Your task to perform on an android device: open sync settings in chrome Image 0: 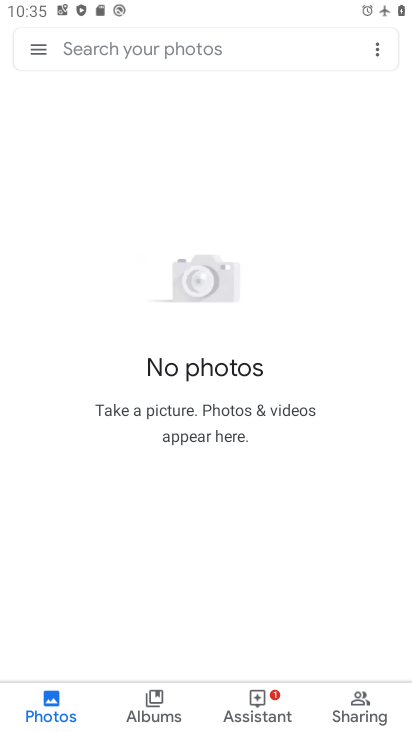
Step 0: press home button
Your task to perform on an android device: open sync settings in chrome Image 1: 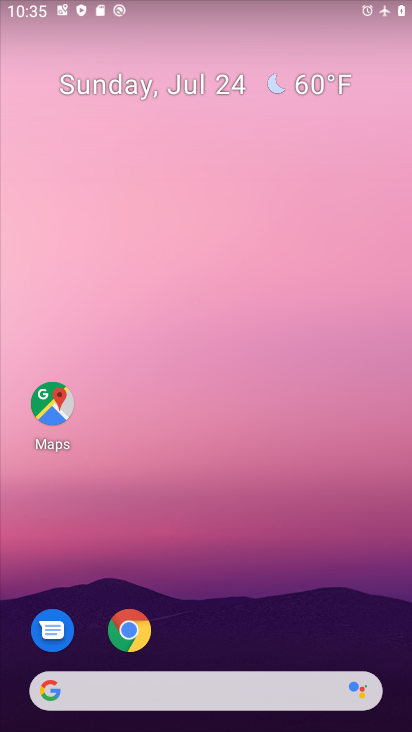
Step 1: click (134, 631)
Your task to perform on an android device: open sync settings in chrome Image 2: 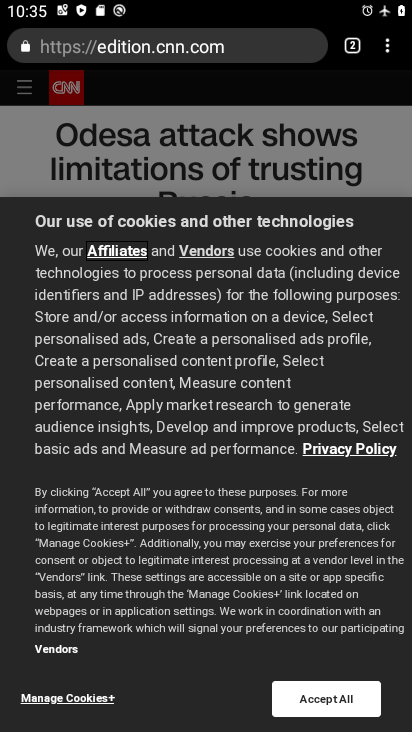
Step 2: click (385, 42)
Your task to perform on an android device: open sync settings in chrome Image 3: 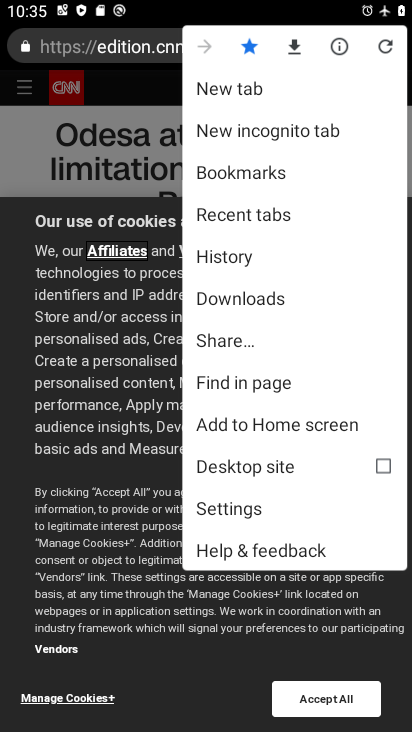
Step 3: click (244, 510)
Your task to perform on an android device: open sync settings in chrome Image 4: 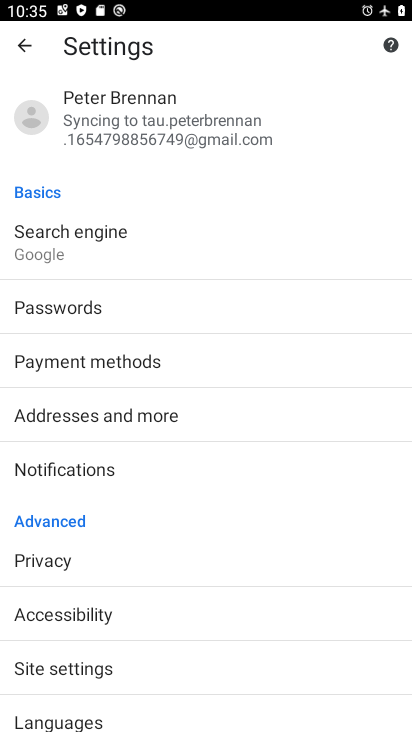
Step 4: click (171, 112)
Your task to perform on an android device: open sync settings in chrome Image 5: 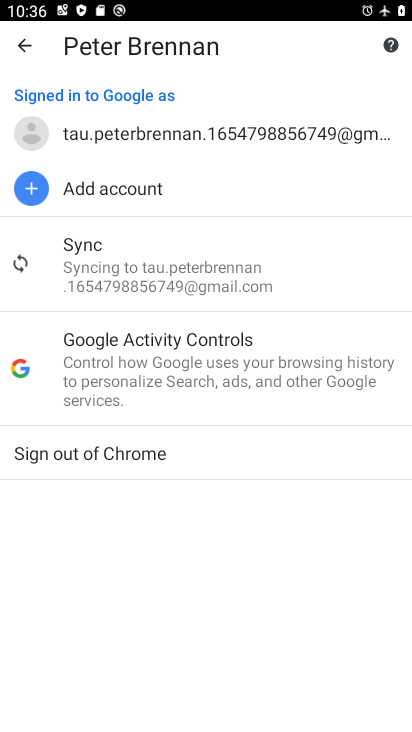
Step 5: click (144, 256)
Your task to perform on an android device: open sync settings in chrome Image 6: 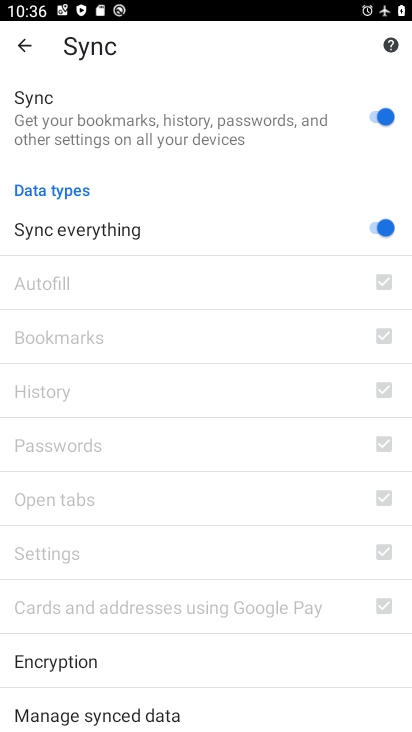
Step 6: task complete